Your task to perform on an android device: Open network settings Image 0: 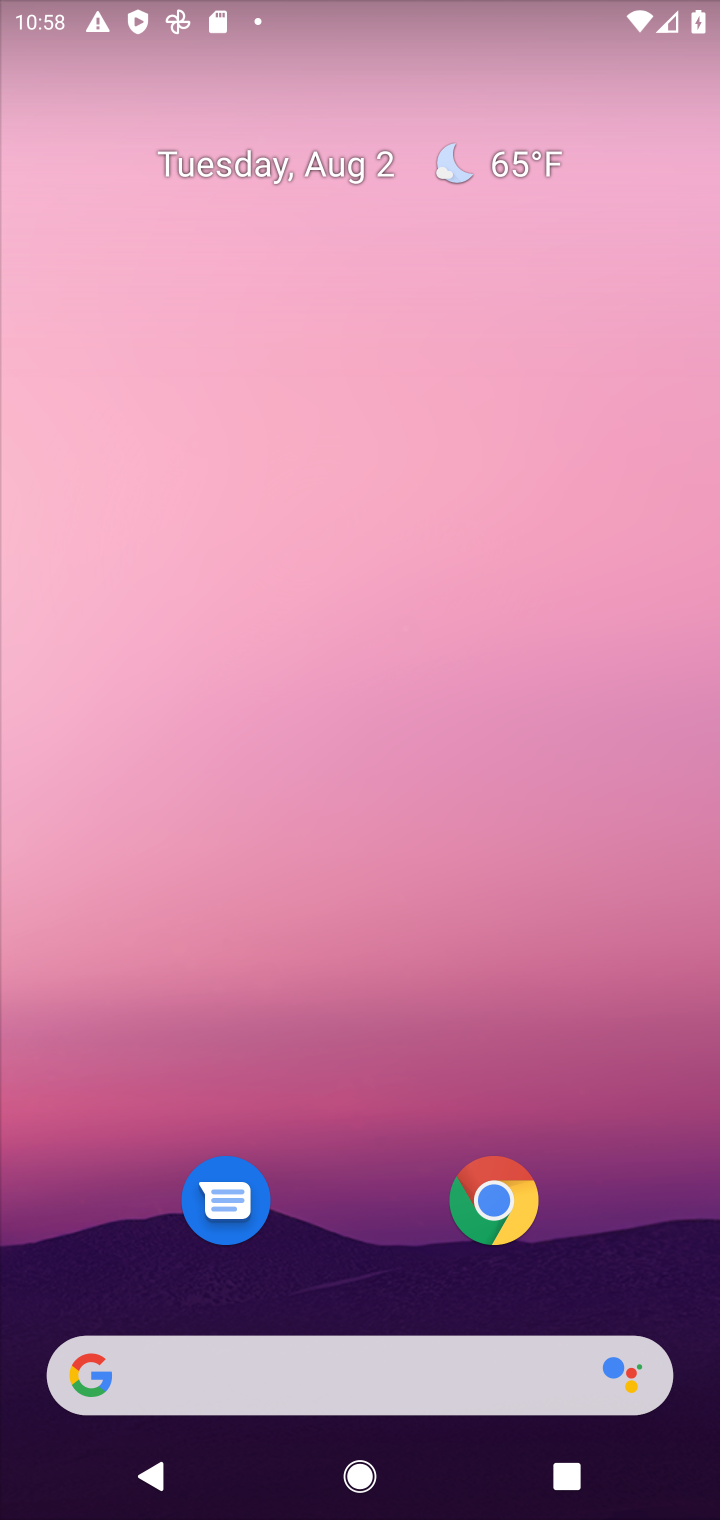
Step 0: drag from (650, 1221) to (565, 483)
Your task to perform on an android device: Open network settings Image 1: 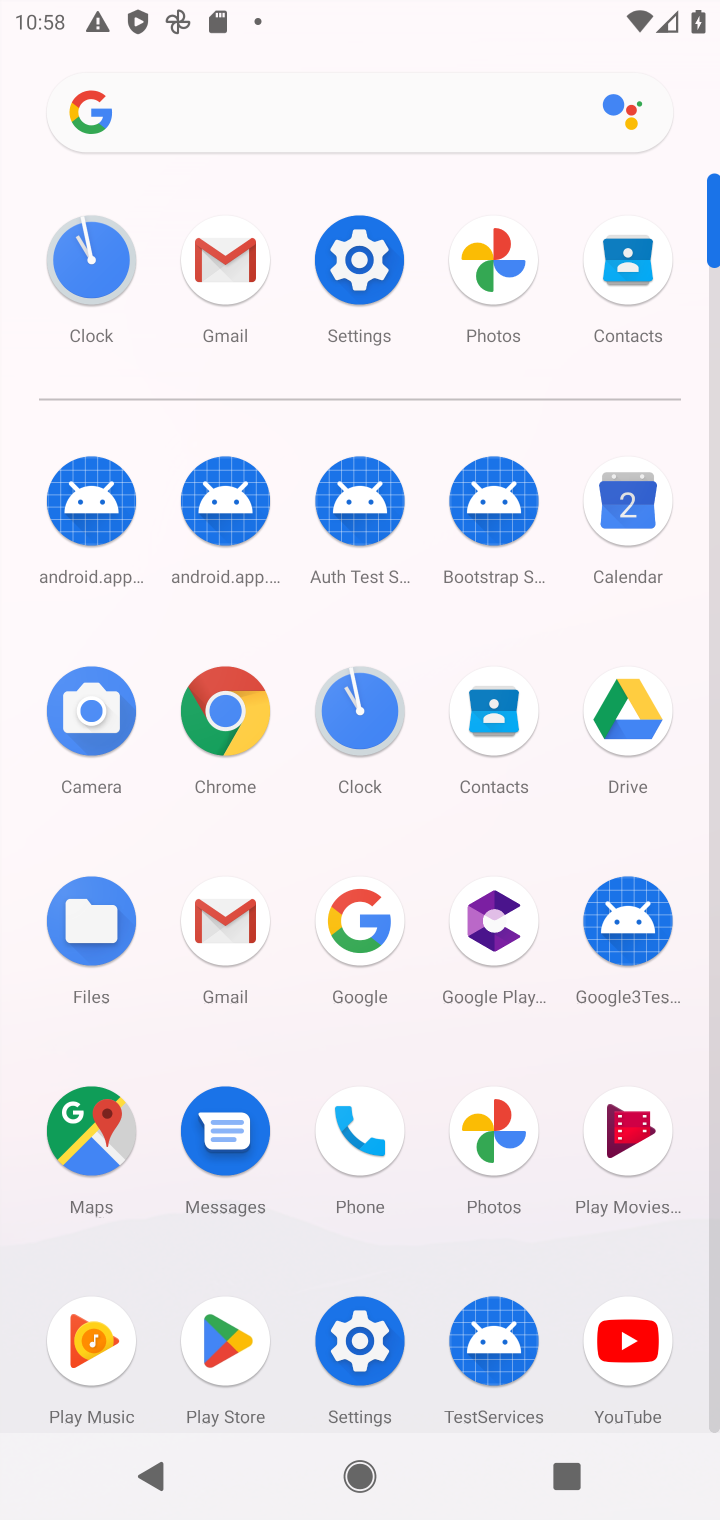
Step 1: click (356, 1343)
Your task to perform on an android device: Open network settings Image 2: 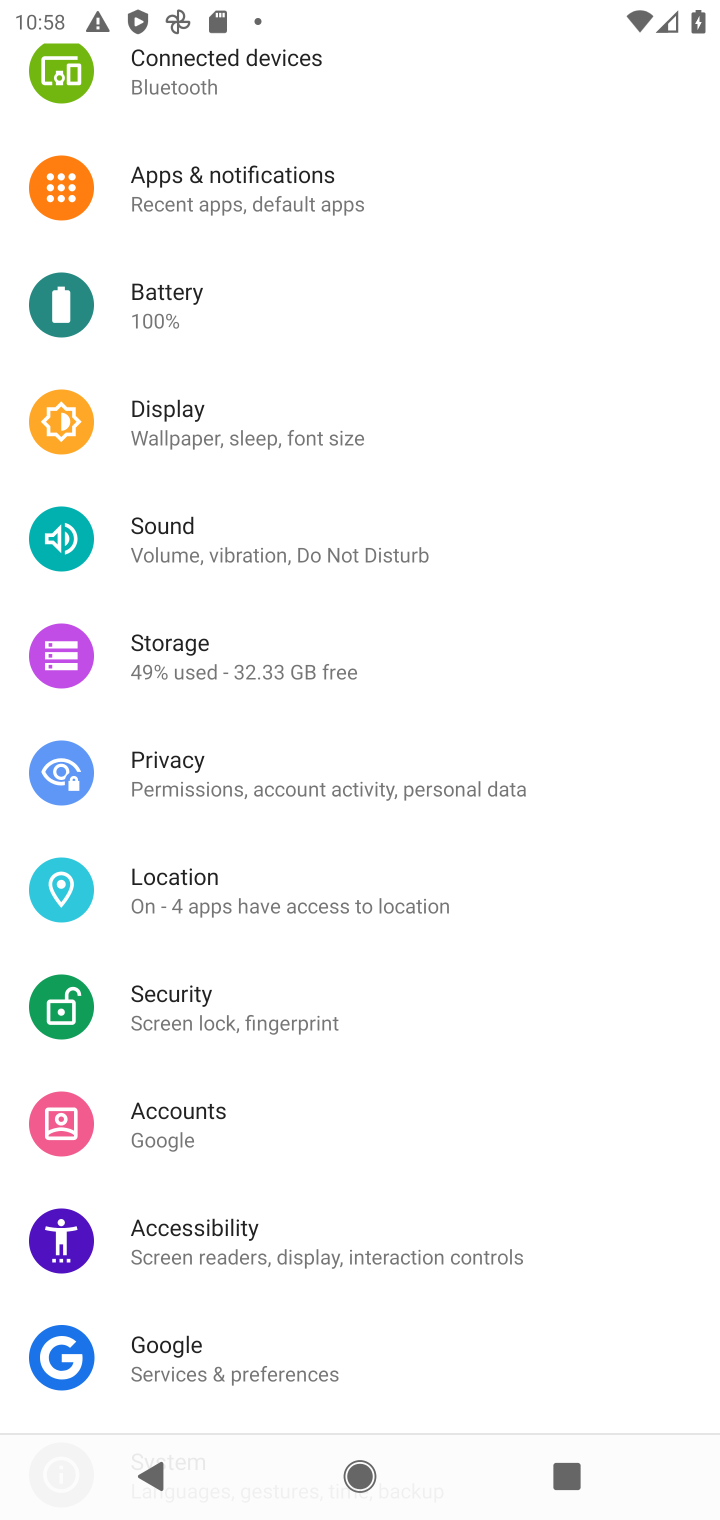
Step 2: drag from (603, 337) to (607, 1109)
Your task to perform on an android device: Open network settings Image 3: 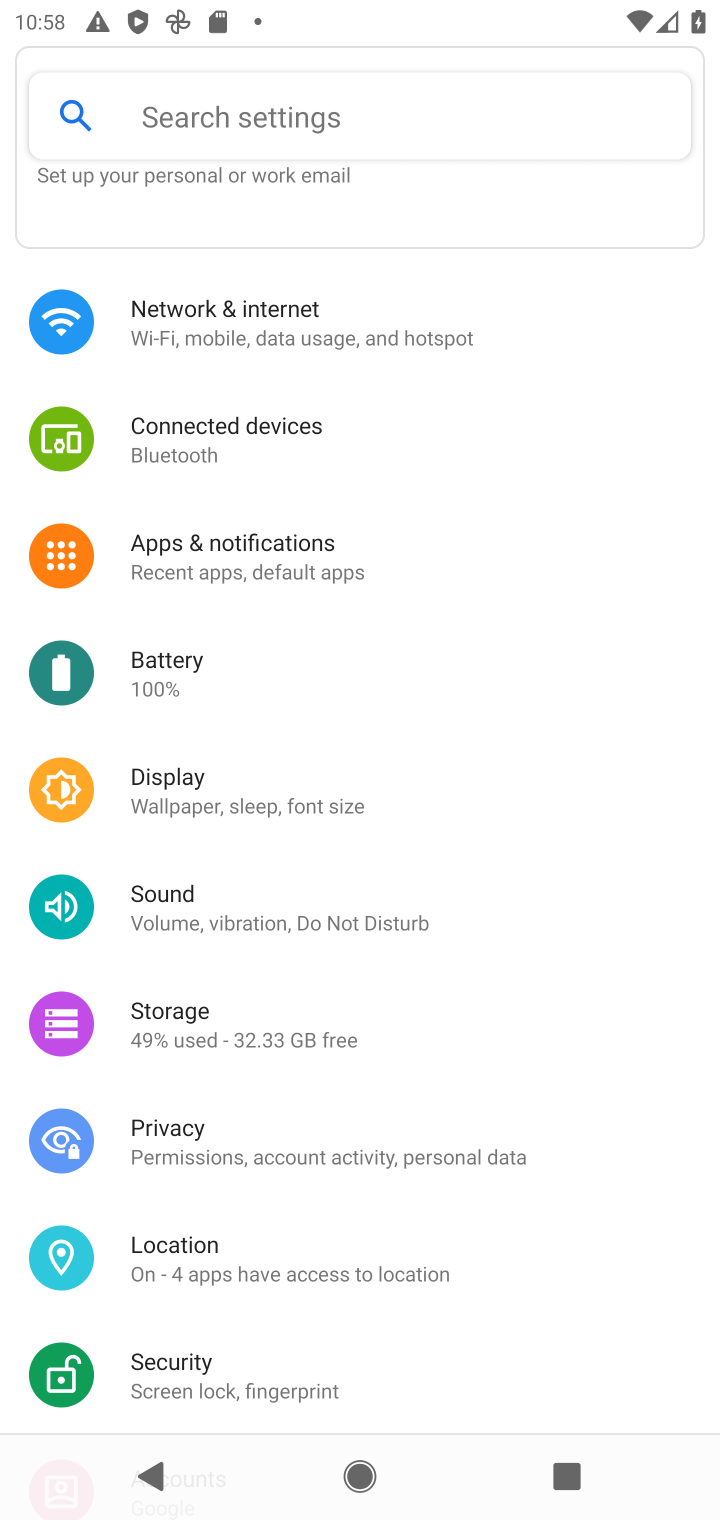
Step 3: click (225, 312)
Your task to perform on an android device: Open network settings Image 4: 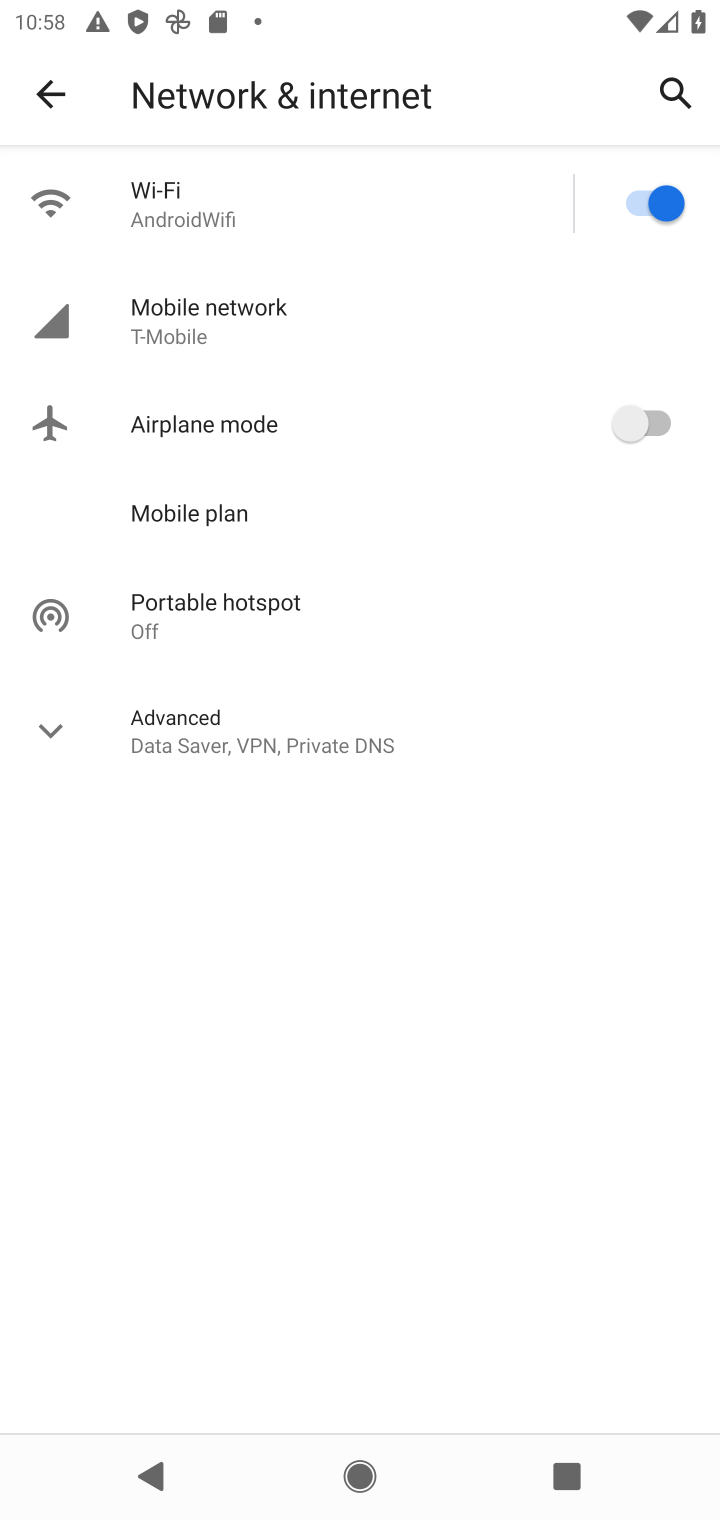
Step 4: click (207, 199)
Your task to perform on an android device: Open network settings Image 5: 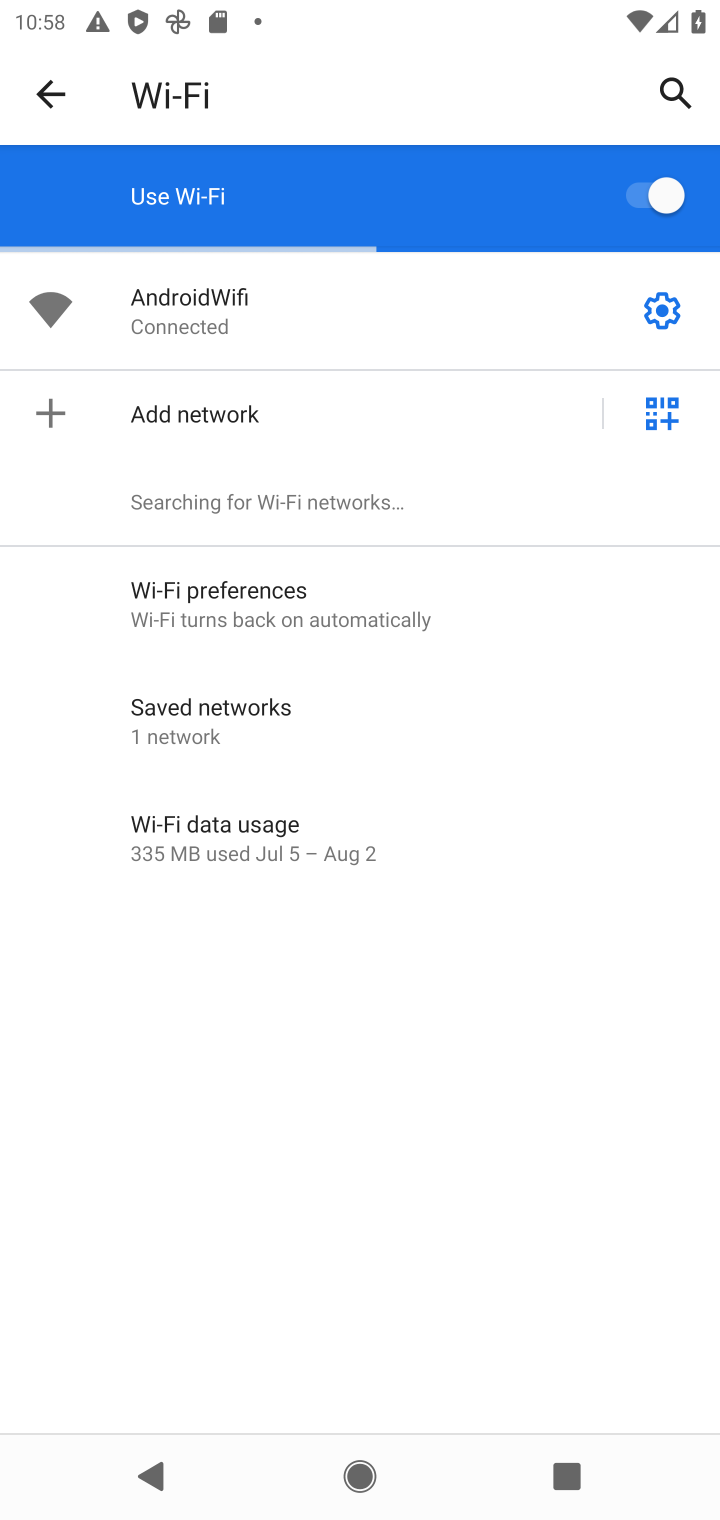
Step 5: task complete